Your task to perform on an android device: turn off notifications in google photos Image 0: 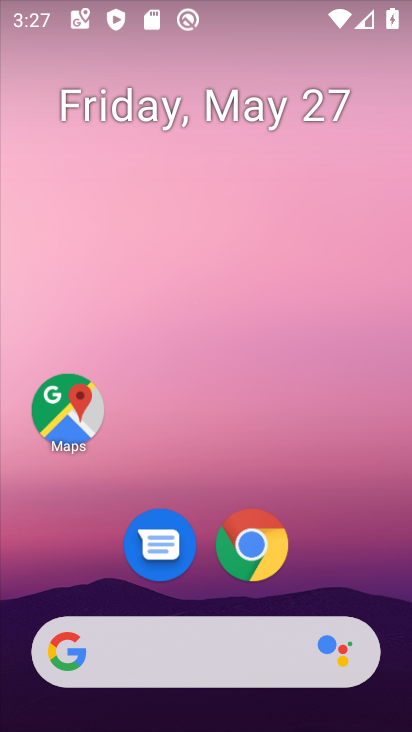
Step 0: press home button
Your task to perform on an android device: turn off notifications in google photos Image 1: 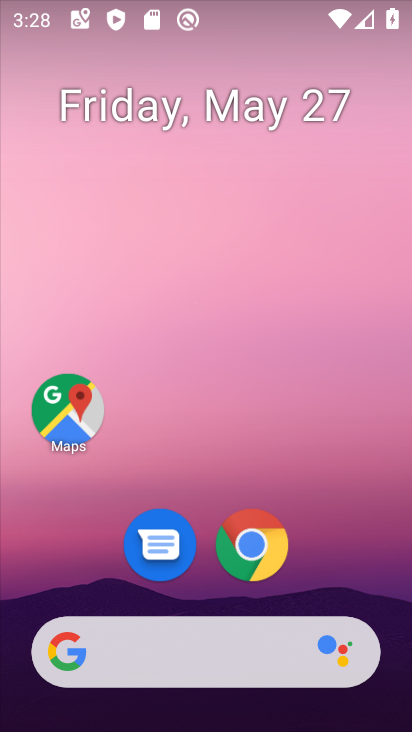
Step 1: drag from (202, 614) to (248, 167)
Your task to perform on an android device: turn off notifications in google photos Image 2: 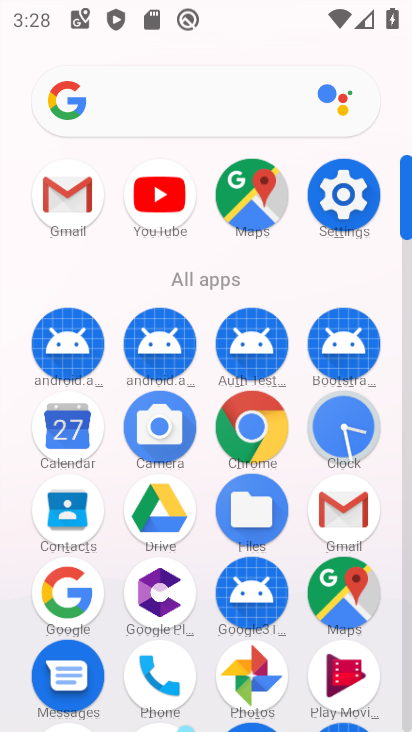
Step 2: drag from (226, 527) to (280, 161)
Your task to perform on an android device: turn off notifications in google photos Image 3: 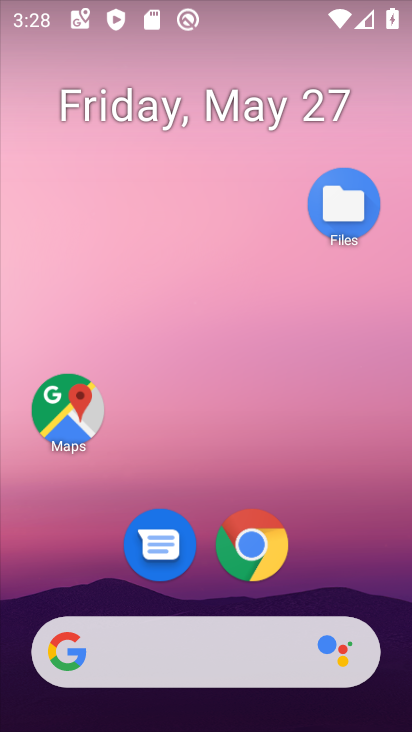
Step 3: drag from (291, 606) to (368, 266)
Your task to perform on an android device: turn off notifications in google photos Image 4: 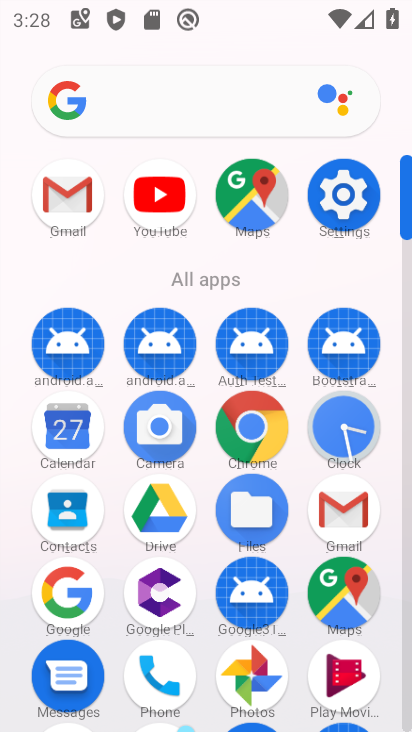
Step 4: click (253, 678)
Your task to perform on an android device: turn off notifications in google photos Image 5: 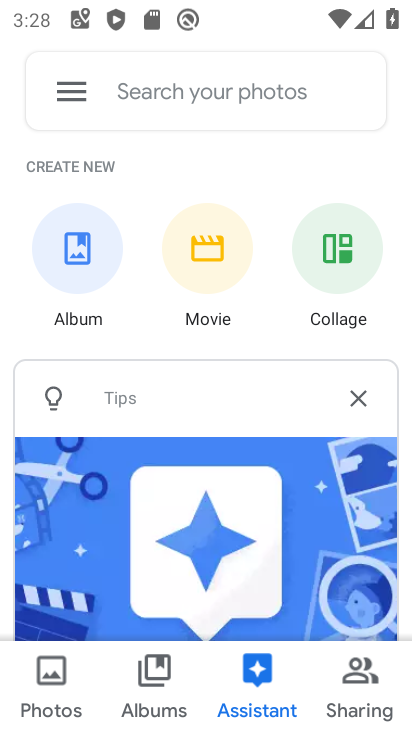
Step 5: click (70, 98)
Your task to perform on an android device: turn off notifications in google photos Image 6: 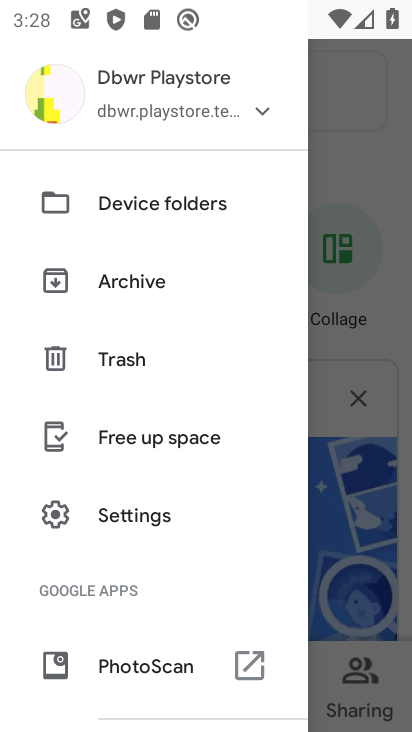
Step 6: click (143, 514)
Your task to perform on an android device: turn off notifications in google photos Image 7: 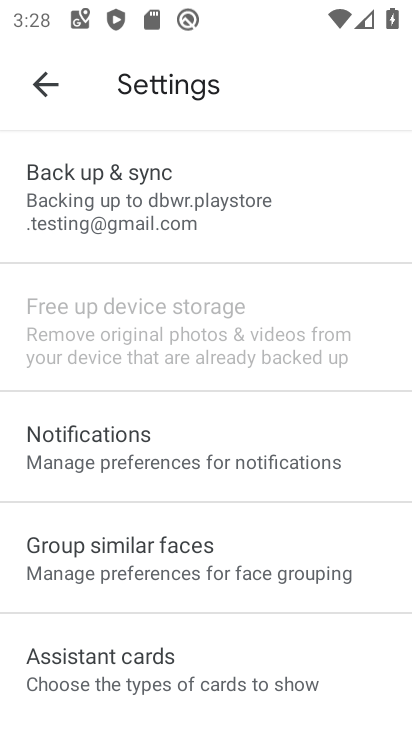
Step 7: click (167, 455)
Your task to perform on an android device: turn off notifications in google photos Image 8: 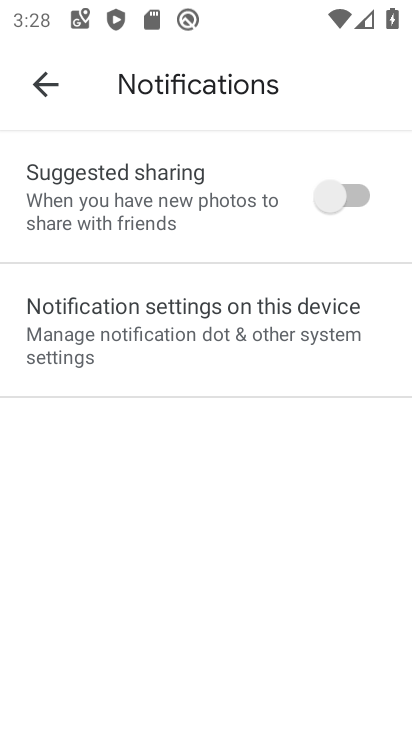
Step 8: click (211, 324)
Your task to perform on an android device: turn off notifications in google photos Image 9: 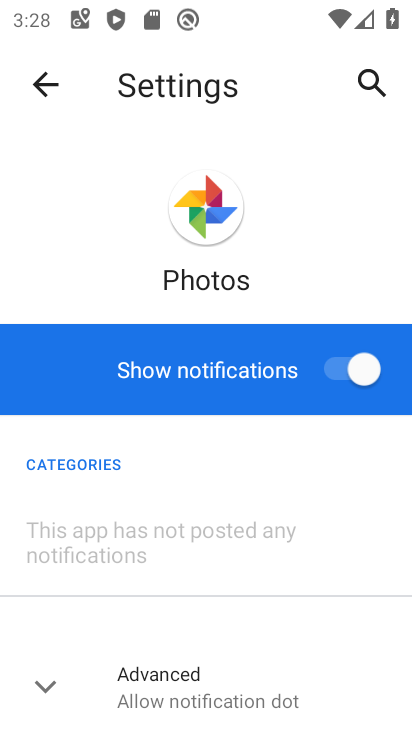
Step 9: click (341, 366)
Your task to perform on an android device: turn off notifications in google photos Image 10: 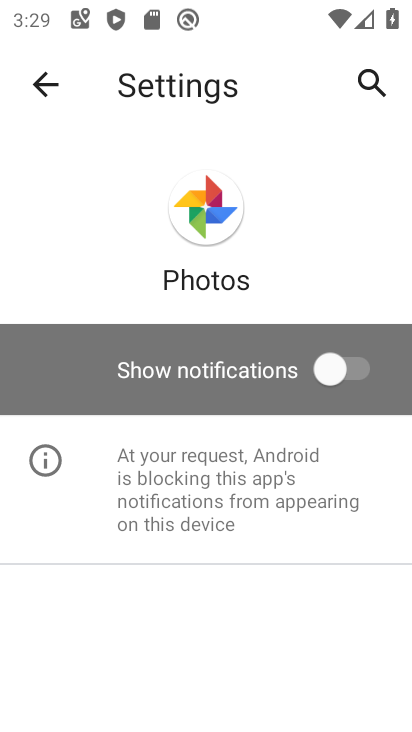
Step 10: task complete